Your task to perform on an android device: turn off location history Image 0: 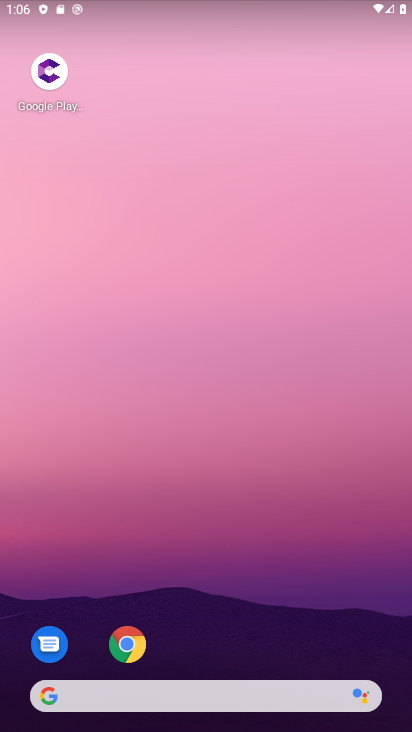
Step 0: drag from (187, 661) to (221, 186)
Your task to perform on an android device: turn off location history Image 1: 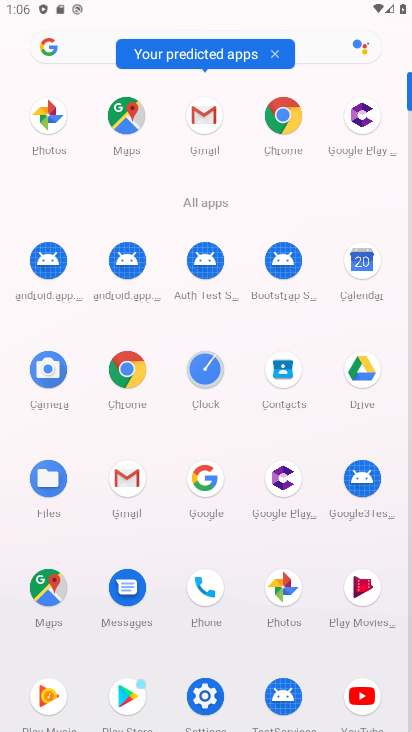
Step 1: click (203, 691)
Your task to perform on an android device: turn off location history Image 2: 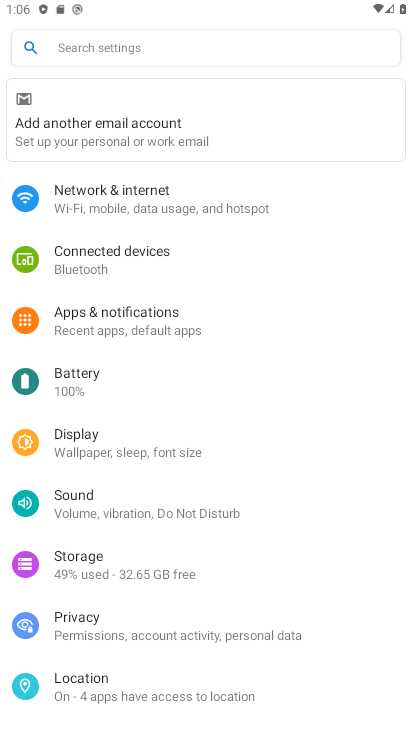
Step 2: click (203, 691)
Your task to perform on an android device: turn off location history Image 3: 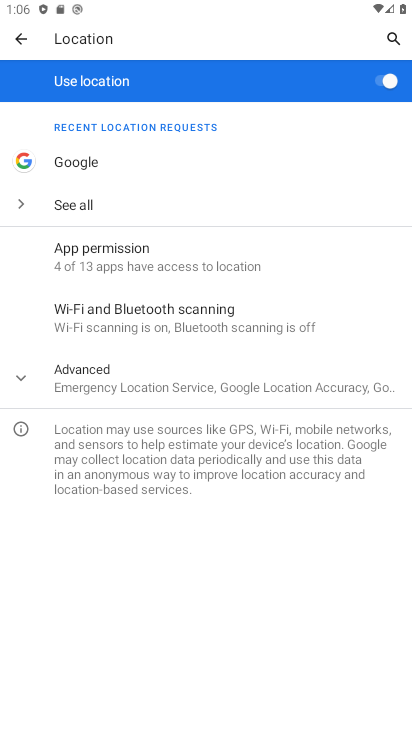
Step 3: click (158, 396)
Your task to perform on an android device: turn off location history Image 4: 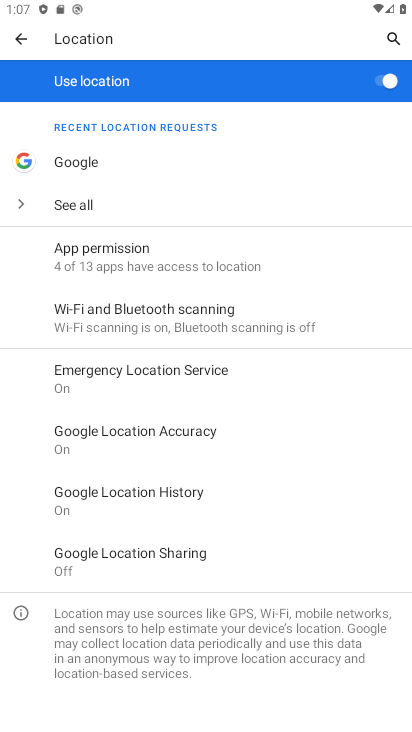
Step 4: click (174, 492)
Your task to perform on an android device: turn off location history Image 5: 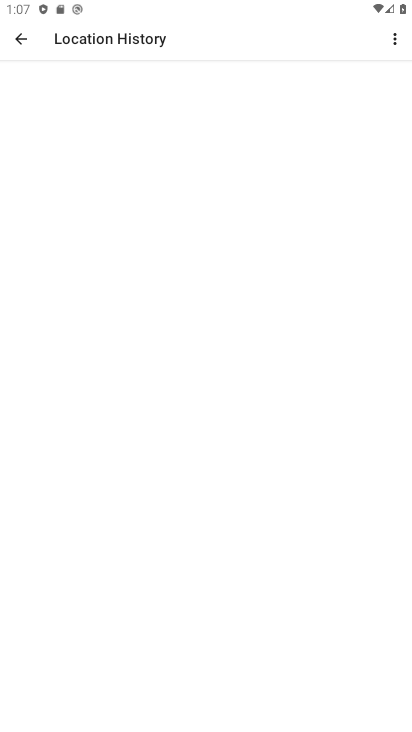
Step 5: click (174, 492)
Your task to perform on an android device: turn off location history Image 6: 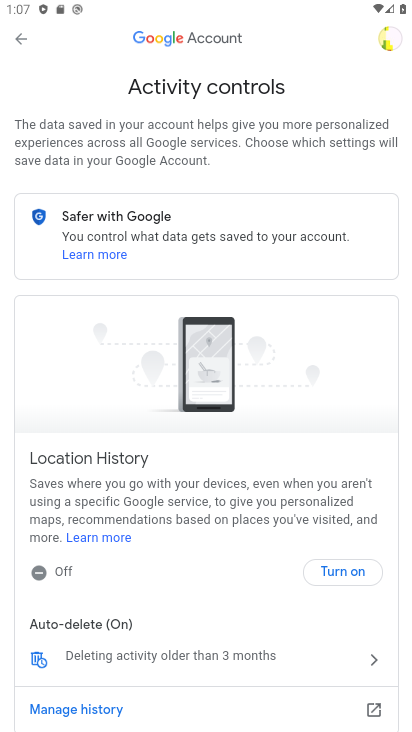
Step 6: task complete